Your task to perform on an android device: delete the emails in spam in the gmail app Image 0: 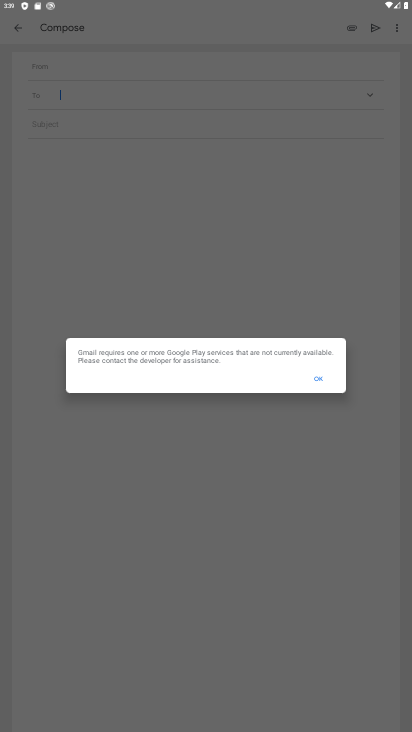
Step 0: press home button
Your task to perform on an android device: delete the emails in spam in the gmail app Image 1: 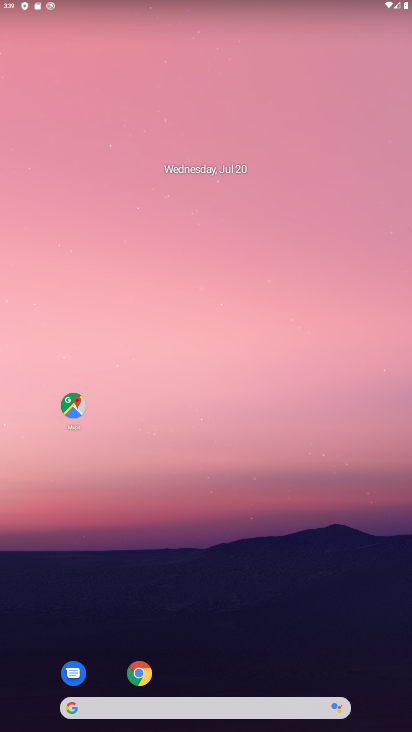
Step 1: drag from (266, 645) to (205, 179)
Your task to perform on an android device: delete the emails in spam in the gmail app Image 2: 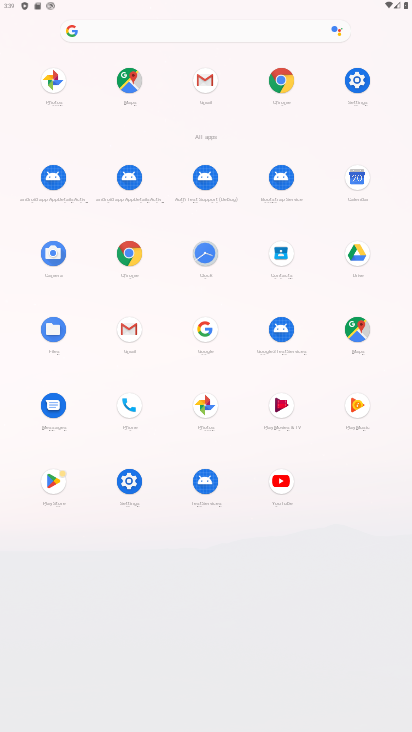
Step 2: click (202, 89)
Your task to perform on an android device: delete the emails in spam in the gmail app Image 3: 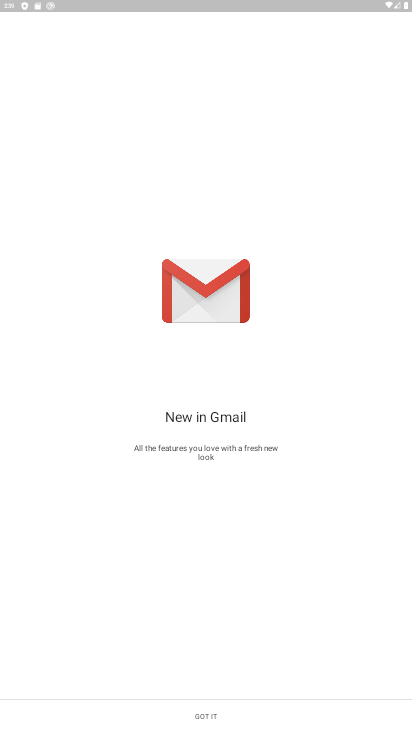
Step 3: click (204, 719)
Your task to perform on an android device: delete the emails in spam in the gmail app Image 4: 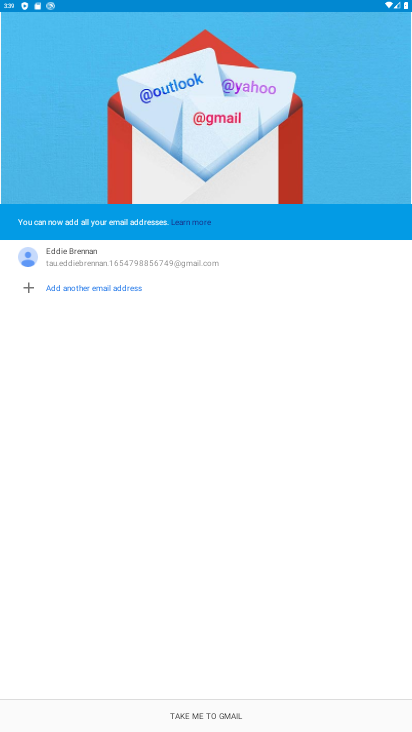
Step 4: click (204, 719)
Your task to perform on an android device: delete the emails in spam in the gmail app Image 5: 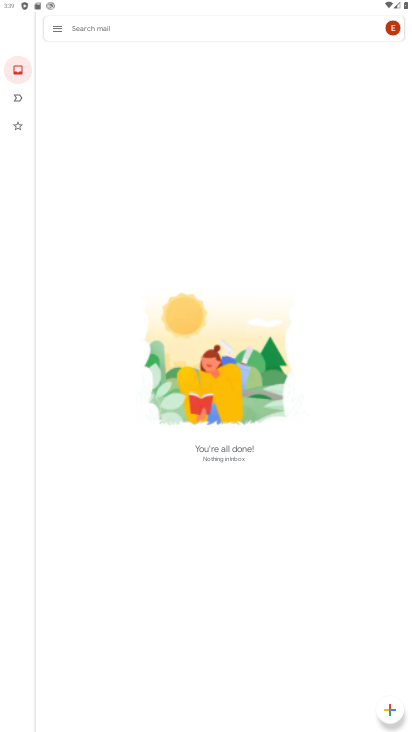
Step 5: click (55, 30)
Your task to perform on an android device: delete the emails in spam in the gmail app Image 6: 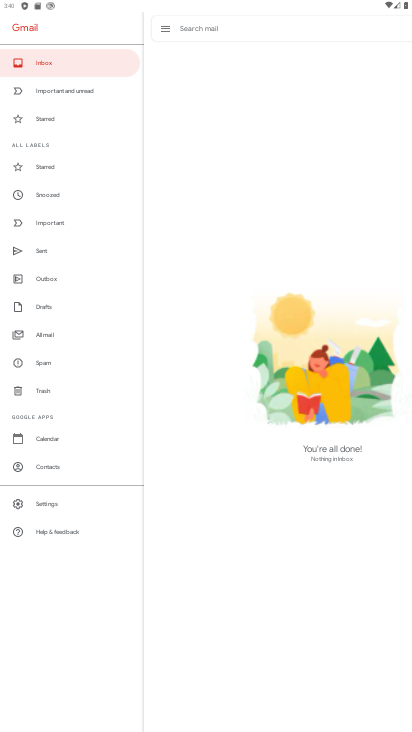
Step 6: click (65, 363)
Your task to perform on an android device: delete the emails in spam in the gmail app Image 7: 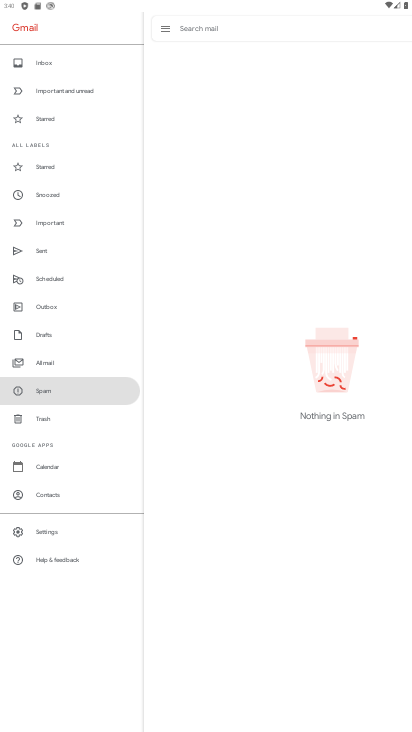
Step 7: task complete